Your task to perform on an android device: toggle data saver in the chrome app Image 0: 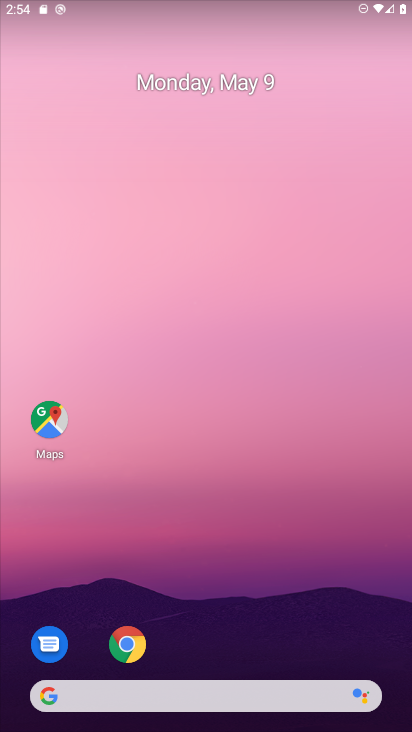
Step 0: drag from (283, 523) to (279, 232)
Your task to perform on an android device: toggle data saver in the chrome app Image 1: 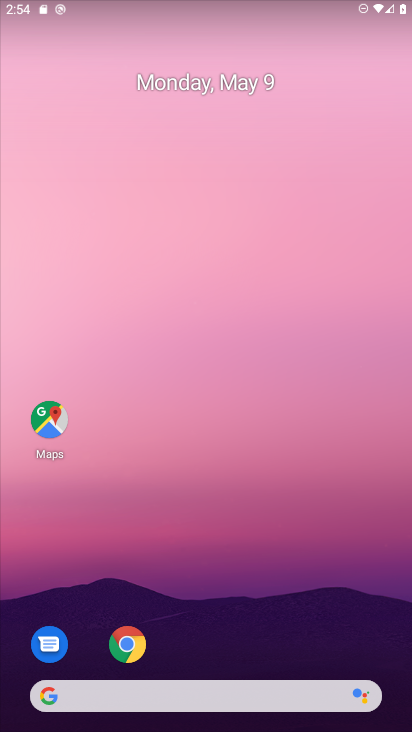
Step 1: drag from (271, 395) to (331, 164)
Your task to perform on an android device: toggle data saver in the chrome app Image 2: 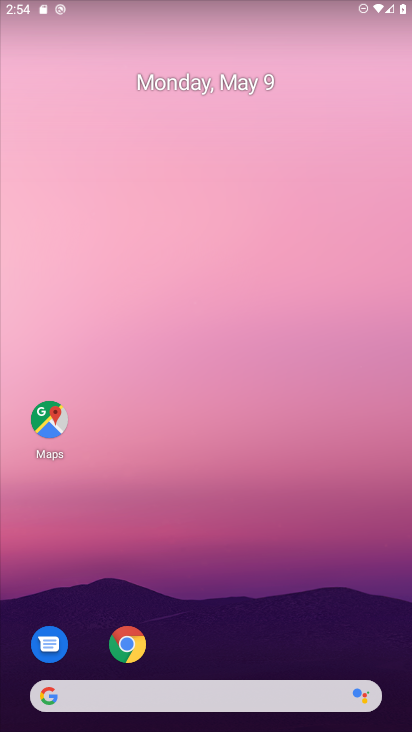
Step 2: drag from (231, 600) to (133, 654)
Your task to perform on an android device: toggle data saver in the chrome app Image 3: 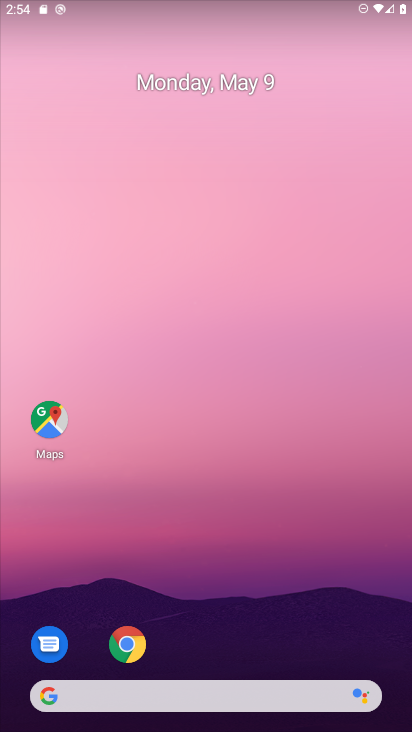
Step 3: click (133, 654)
Your task to perform on an android device: toggle data saver in the chrome app Image 4: 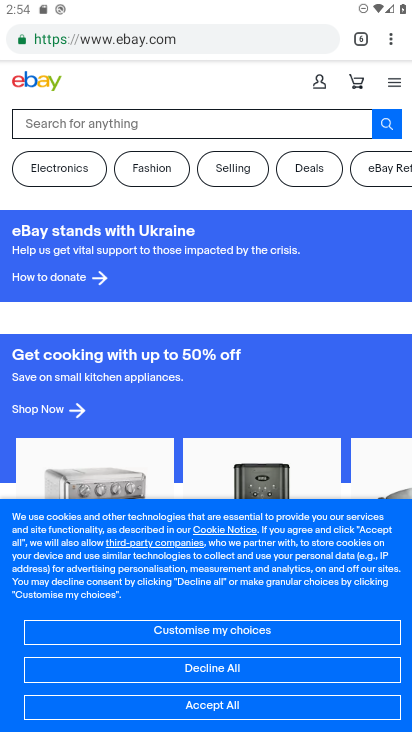
Step 4: click (384, 36)
Your task to perform on an android device: toggle data saver in the chrome app Image 5: 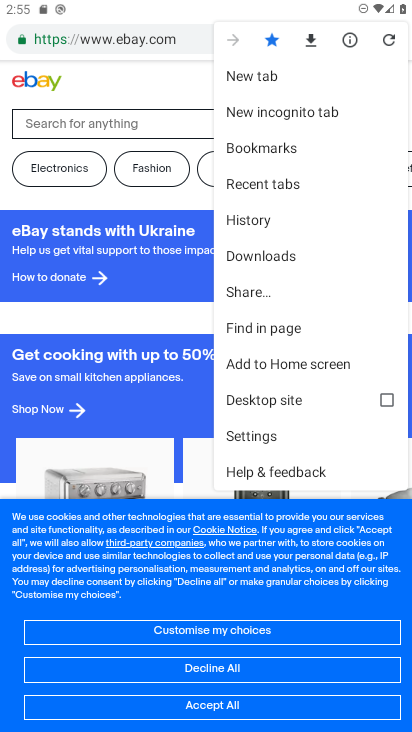
Step 5: click (249, 437)
Your task to perform on an android device: toggle data saver in the chrome app Image 6: 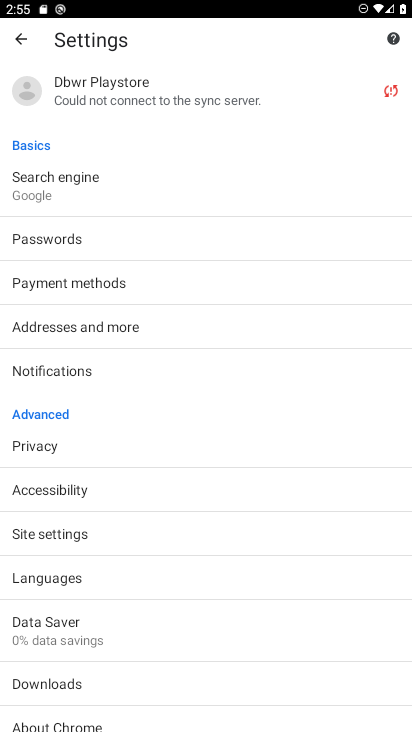
Step 6: click (44, 644)
Your task to perform on an android device: toggle data saver in the chrome app Image 7: 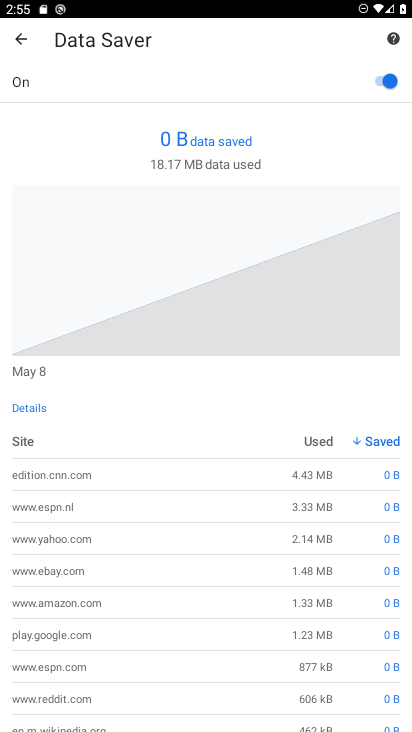
Step 7: click (371, 86)
Your task to perform on an android device: toggle data saver in the chrome app Image 8: 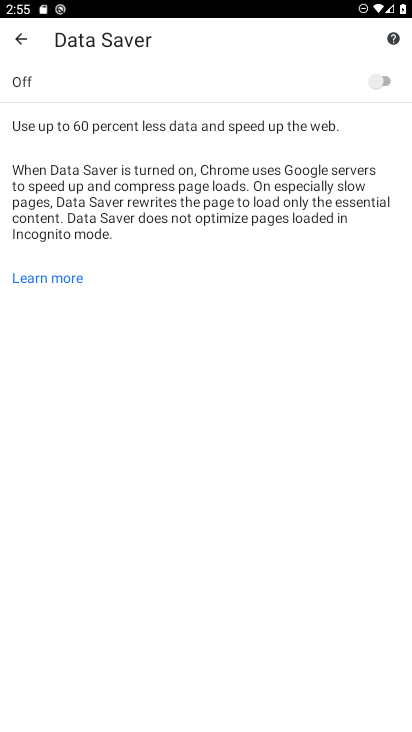
Step 8: task complete